Your task to perform on an android device: find snoozed emails in the gmail app Image 0: 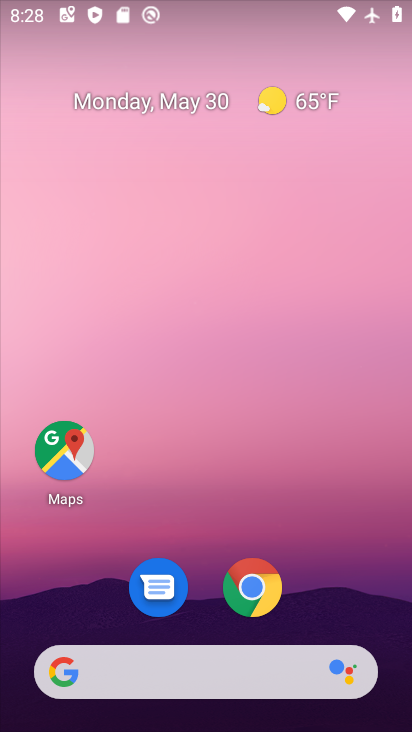
Step 0: press home button
Your task to perform on an android device: find snoozed emails in the gmail app Image 1: 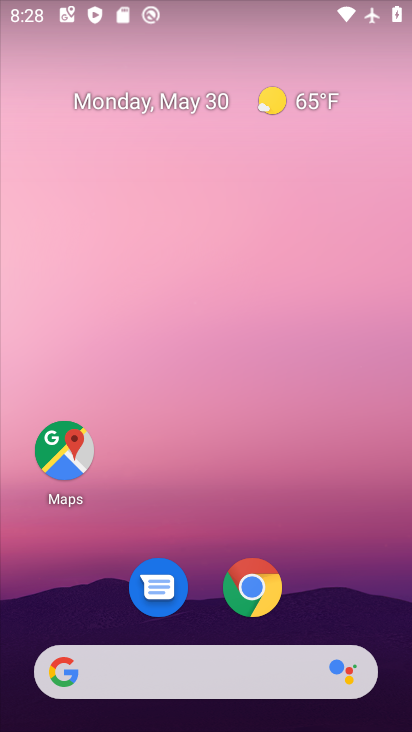
Step 1: drag from (212, 618) to (326, 159)
Your task to perform on an android device: find snoozed emails in the gmail app Image 2: 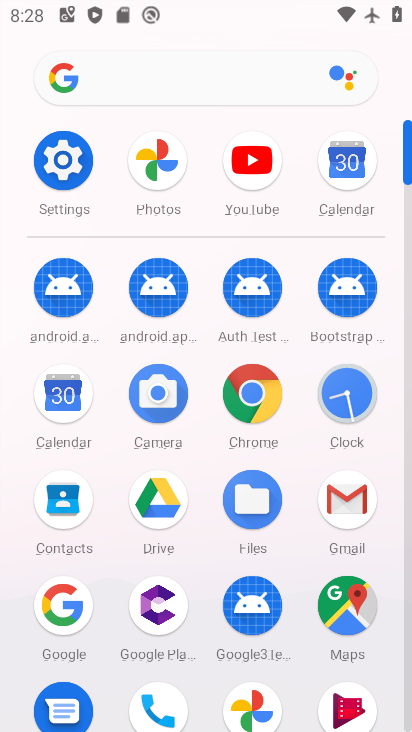
Step 2: click (348, 503)
Your task to perform on an android device: find snoozed emails in the gmail app Image 3: 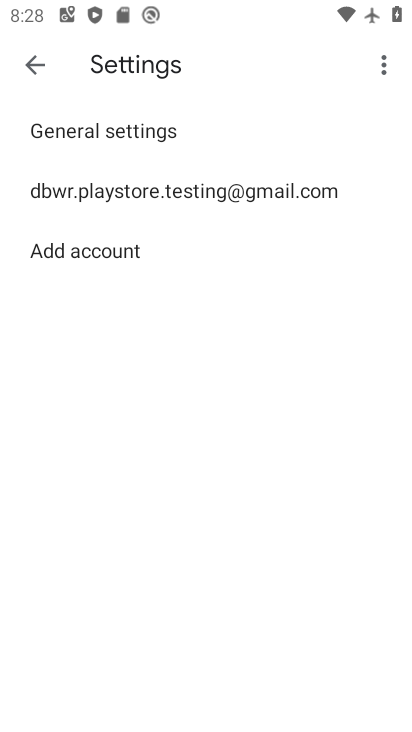
Step 3: click (26, 54)
Your task to perform on an android device: find snoozed emails in the gmail app Image 4: 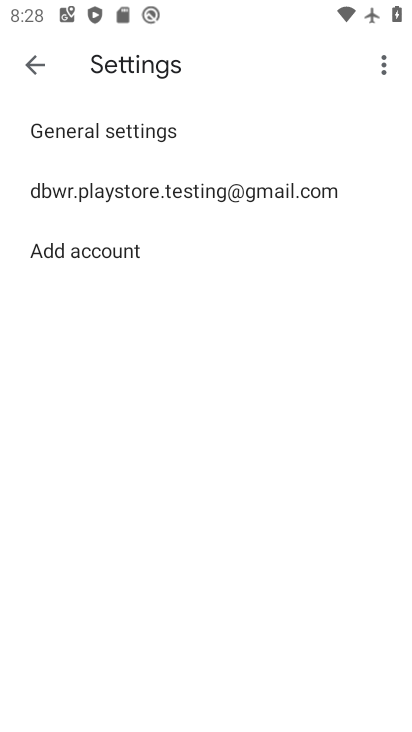
Step 4: click (39, 56)
Your task to perform on an android device: find snoozed emails in the gmail app Image 5: 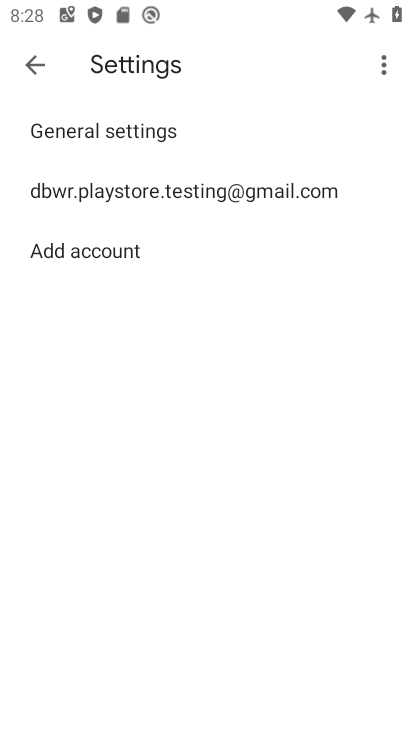
Step 5: click (34, 66)
Your task to perform on an android device: find snoozed emails in the gmail app Image 6: 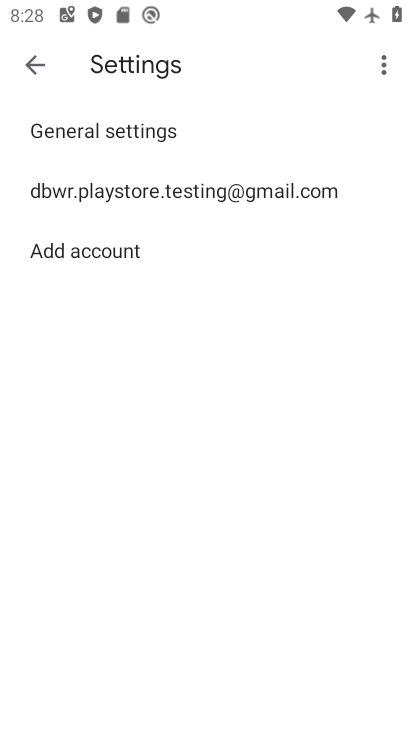
Step 6: click (38, 55)
Your task to perform on an android device: find snoozed emails in the gmail app Image 7: 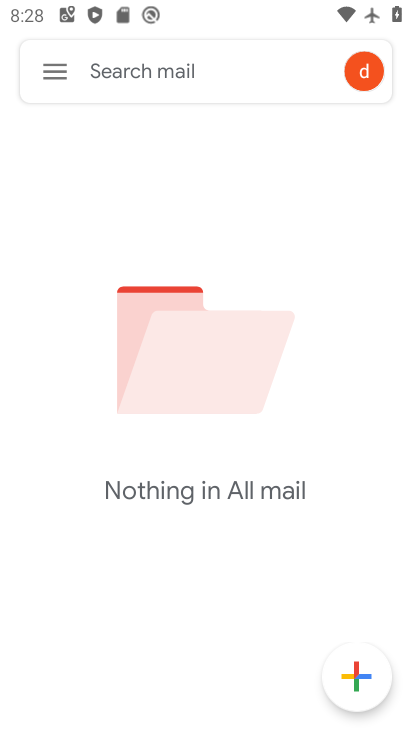
Step 7: click (62, 69)
Your task to perform on an android device: find snoozed emails in the gmail app Image 8: 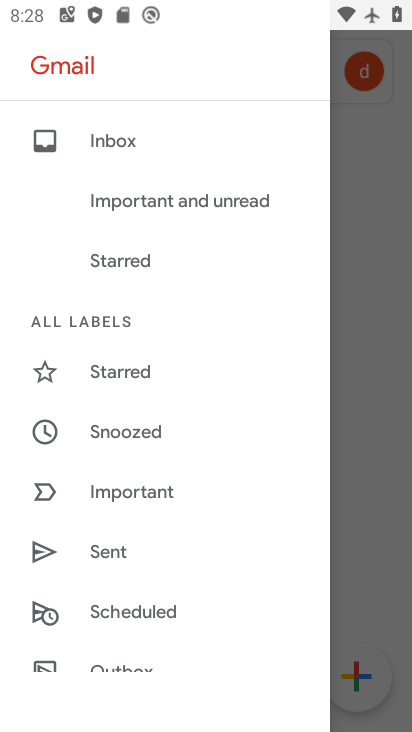
Step 8: click (136, 428)
Your task to perform on an android device: find snoozed emails in the gmail app Image 9: 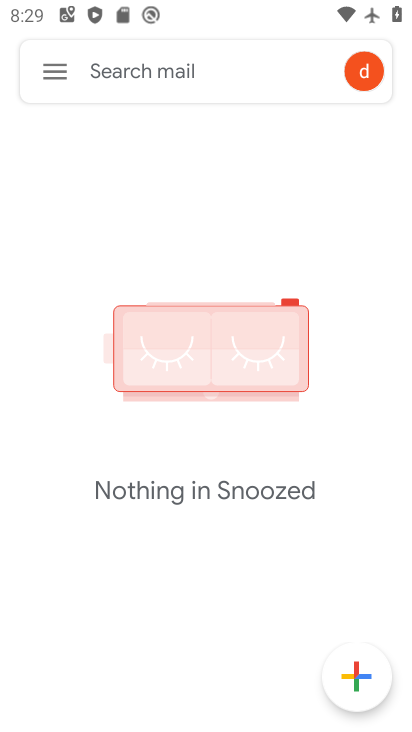
Step 9: task complete